Your task to perform on an android device: turn off translation in the chrome app Image 0: 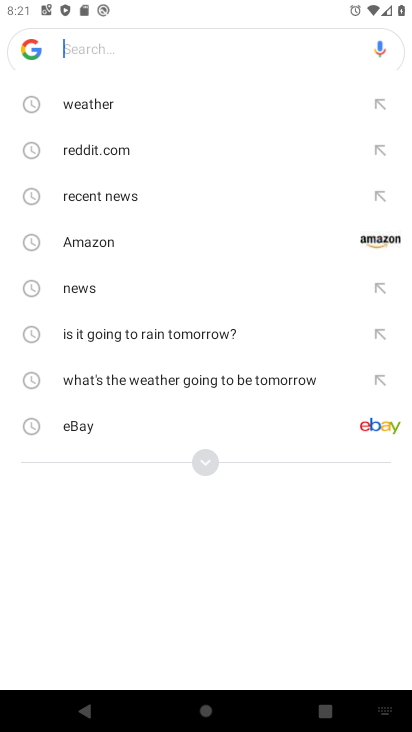
Step 0: press home button
Your task to perform on an android device: turn off translation in the chrome app Image 1: 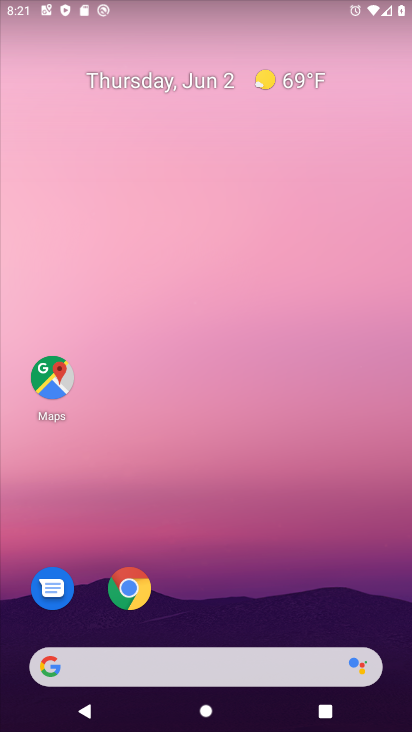
Step 1: click (126, 589)
Your task to perform on an android device: turn off translation in the chrome app Image 2: 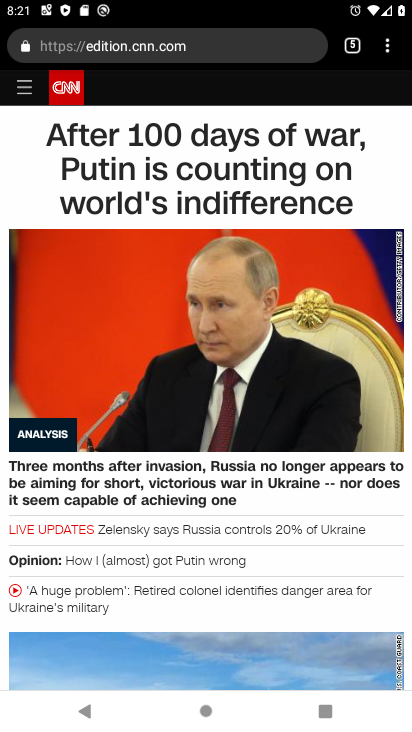
Step 2: click (390, 54)
Your task to perform on an android device: turn off translation in the chrome app Image 3: 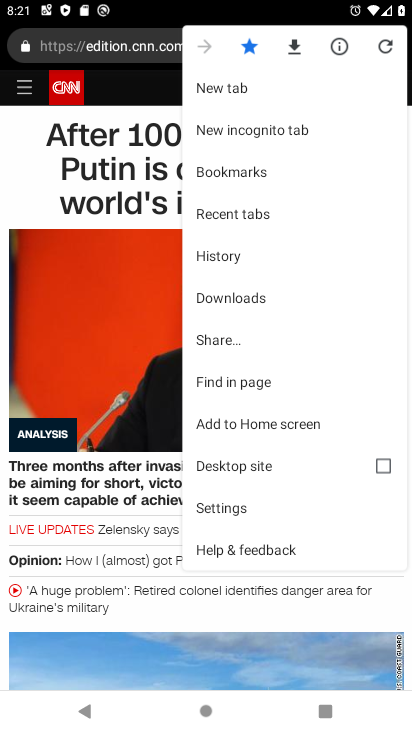
Step 3: click (226, 510)
Your task to perform on an android device: turn off translation in the chrome app Image 4: 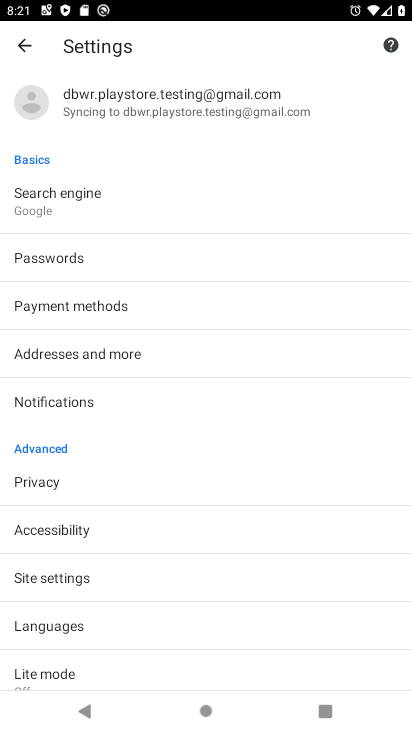
Step 4: click (55, 627)
Your task to perform on an android device: turn off translation in the chrome app Image 5: 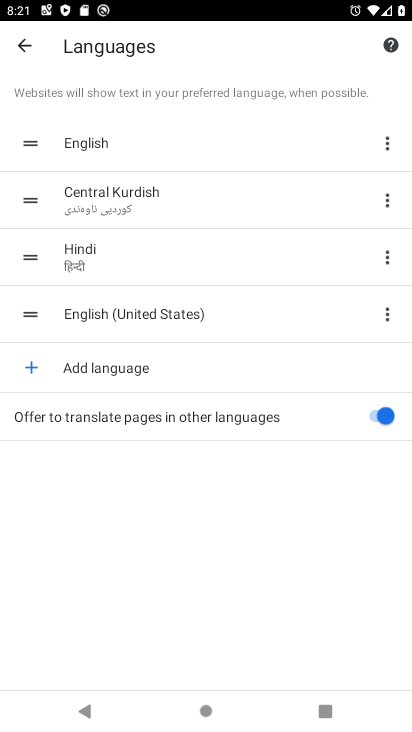
Step 5: click (375, 414)
Your task to perform on an android device: turn off translation in the chrome app Image 6: 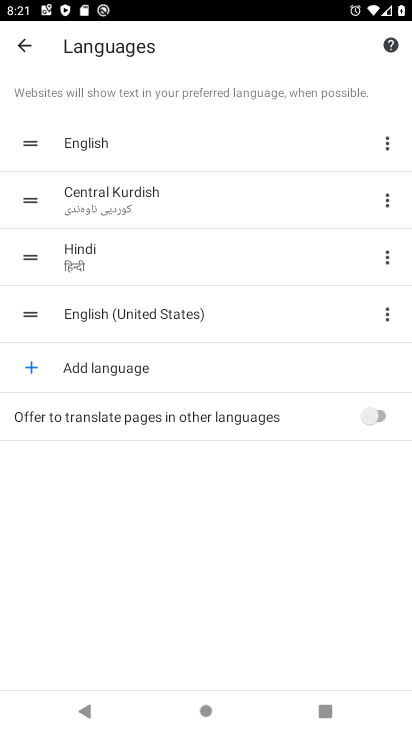
Step 6: task complete